Your task to perform on an android device: open chrome and create a bookmark for the current page Image 0: 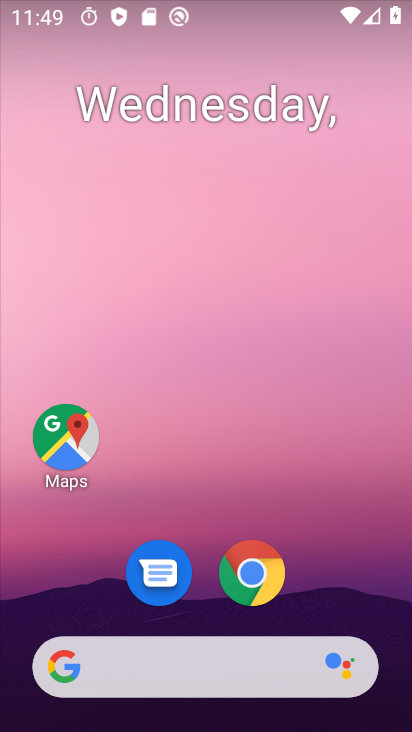
Step 0: drag from (391, 503) to (392, 242)
Your task to perform on an android device: open chrome and create a bookmark for the current page Image 1: 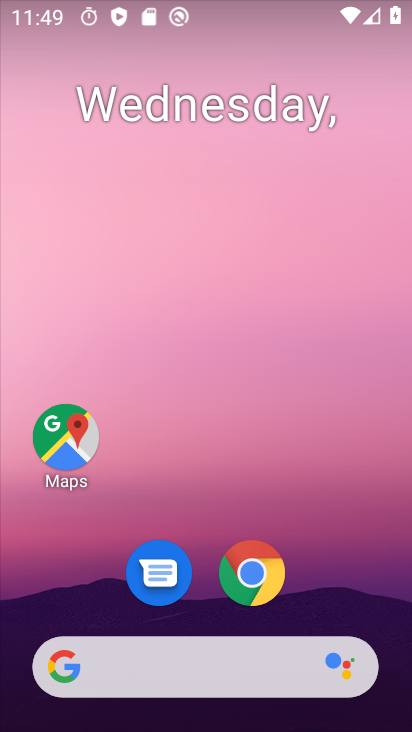
Step 1: click (265, 570)
Your task to perform on an android device: open chrome and create a bookmark for the current page Image 2: 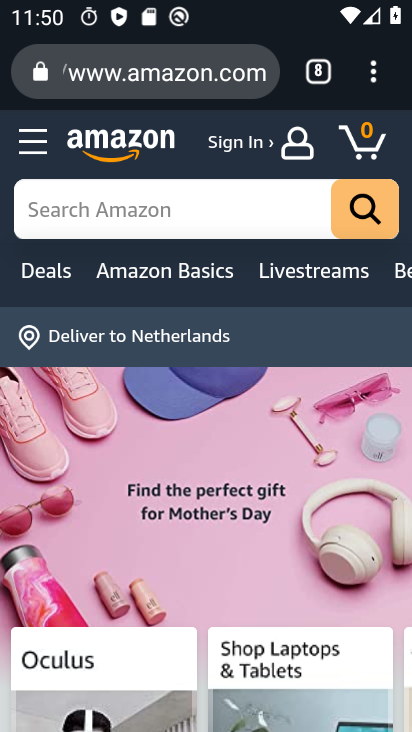
Step 2: click (373, 71)
Your task to perform on an android device: open chrome and create a bookmark for the current page Image 3: 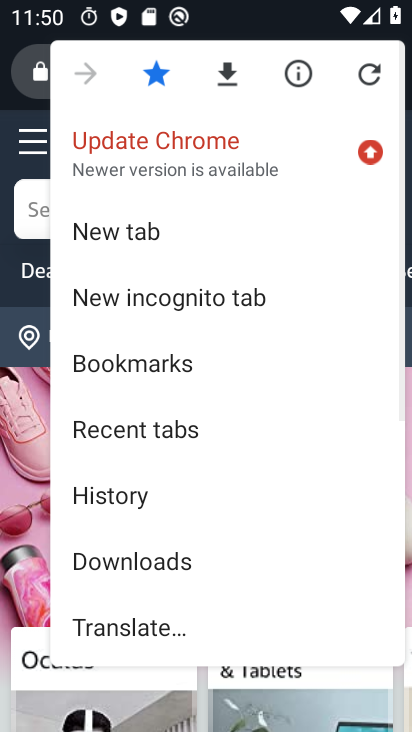
Step 3: click (153, 222)
Your task to perform on an android device: open chrome and create a bookmark for the current page Image 4: 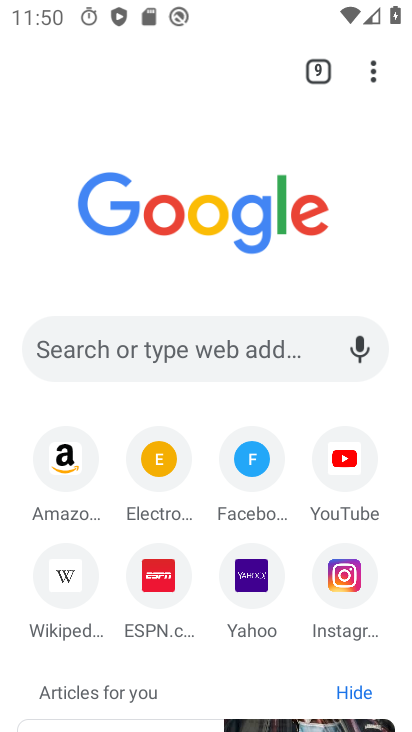
Step 4: click (183, 348)
Your task to perform on an android device: open chrome and create a bookmark for the current page Image 5: 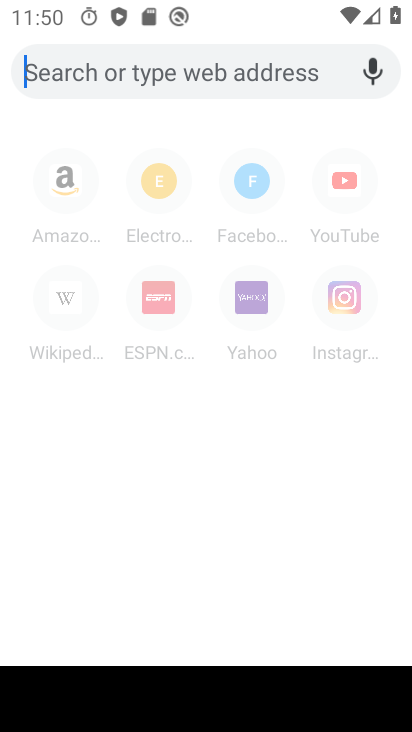
Step 5: type "www.hinduja .com"
Your task to perform on an android device: open chrome and create a bookmark for the current page Image 6: 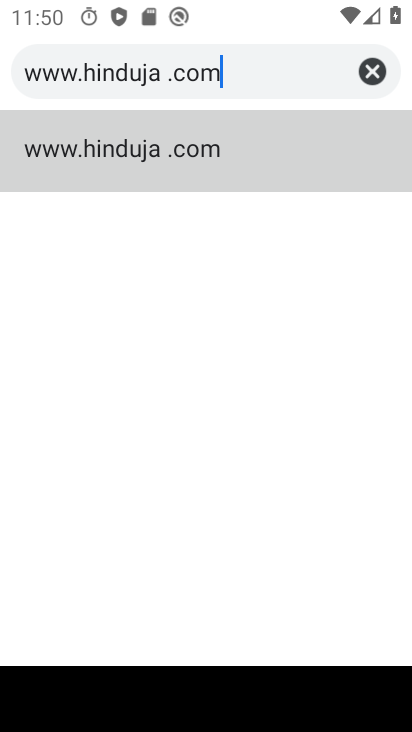
Step 6: click (157, 146)
Your task to perform on an android device: open chrome and create a bookmark for the current page Image 7: 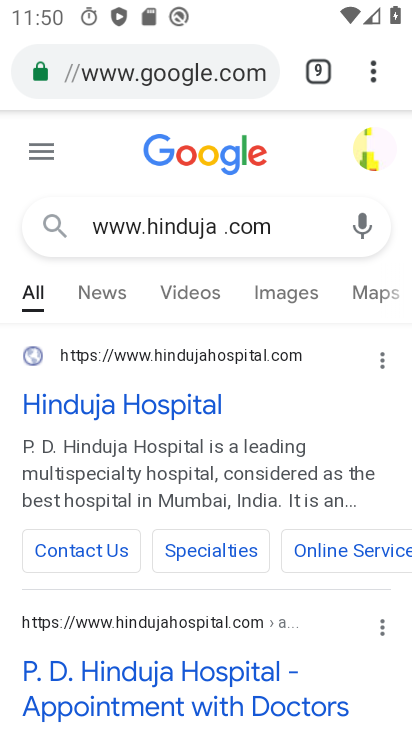
Step 7: click (74, 404)
Your task to perform on an android device: open chrome and create a bookmark for the current page Image 8: 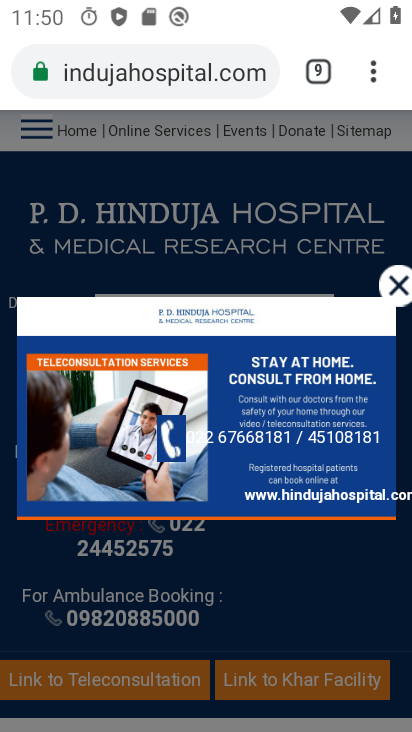
Step 8: task complete